Your task to perform on an android device: Open Reddit.com Image 0: 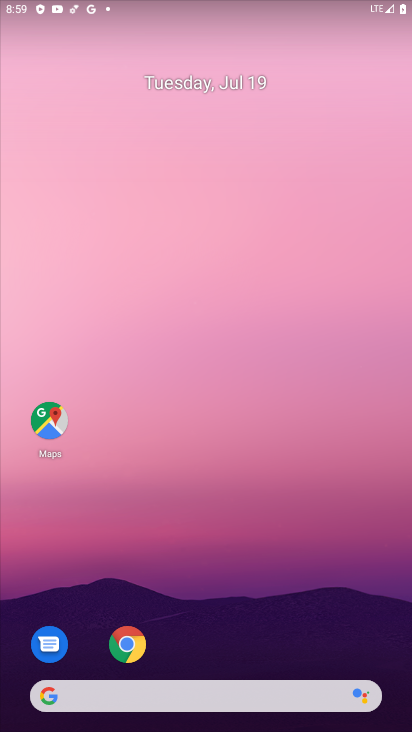
Step 0: click (113, 637)
Your task to perform on an android device: Open Reddit.com Image 1: 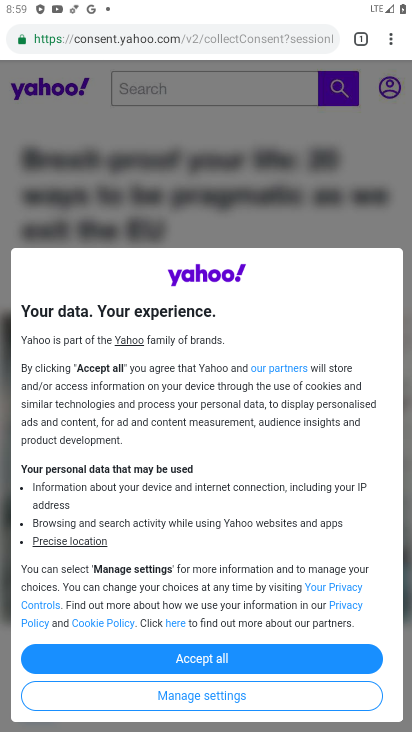
Step 1: click (226, 34)
Your task to perform on an android device: Open Reddit.com Image 2: 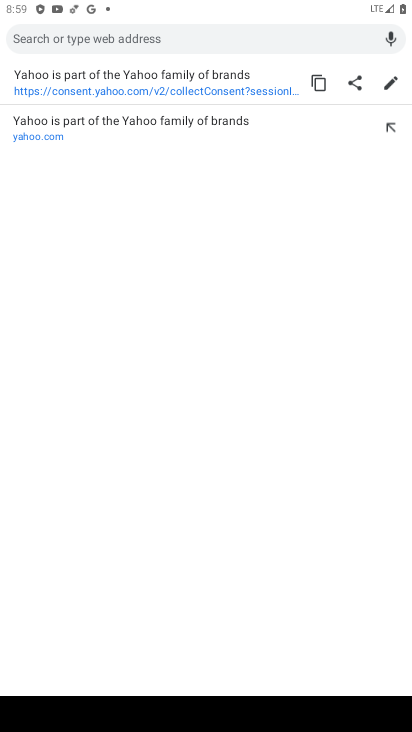
Step 2: type "Reddit.com"
Your task to perform on an android device: Open Reddit.com Image 3: 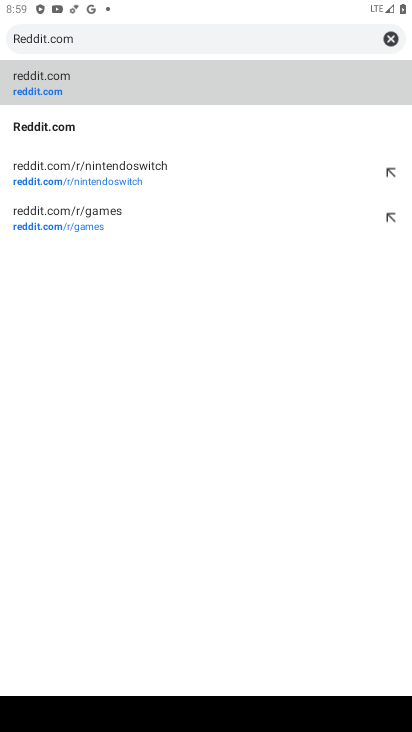
Step 3: click (78, 85)
Your task to perform on an android device: Open Reddit.com Image 4: 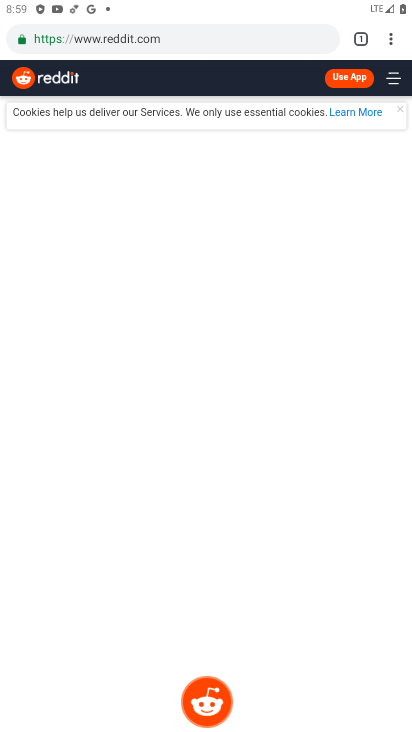
Step 4: task complete